Your task to perform on an android device: delete the emails in spam in the gmail app Image 0: 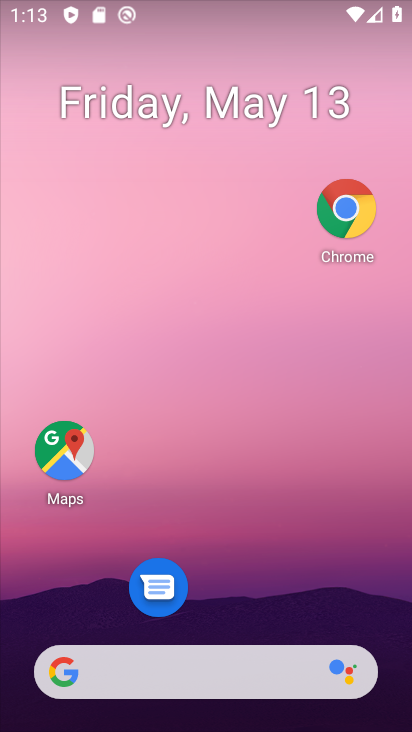
Step 0: drag from (227, 616) to (299, 9)
Your task to perform on an android device: delete the emails in spam in the gmail app Image 1: 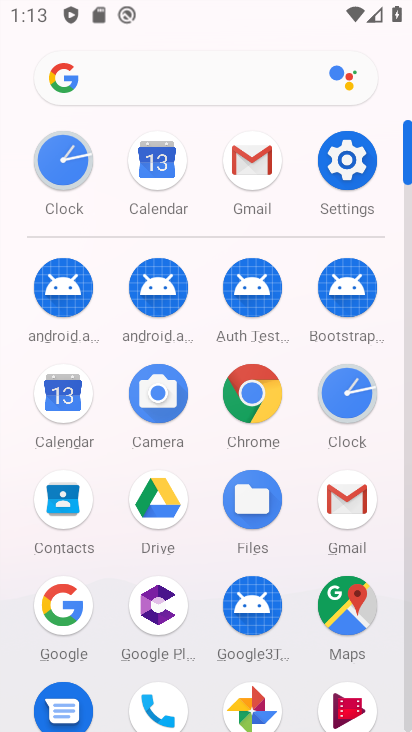
Step 1: click (242, 174)
Your task to perform on an android device: delete the emails in spam in the gmail app Image 2: 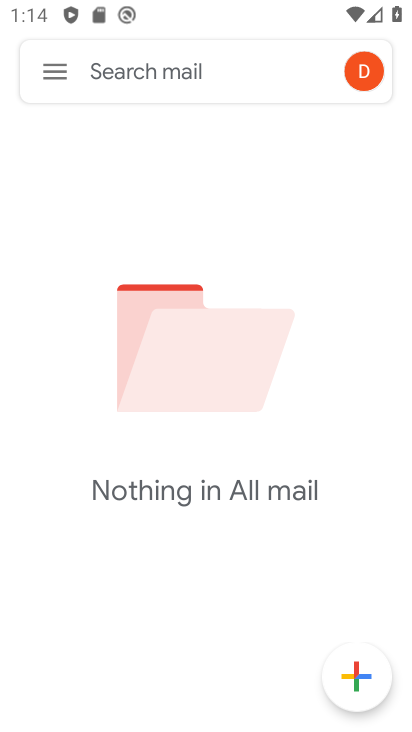
Step 2: click (63, 73)
Your task to perform on an android device: delete the emails in spam in the gmail app Image 3: 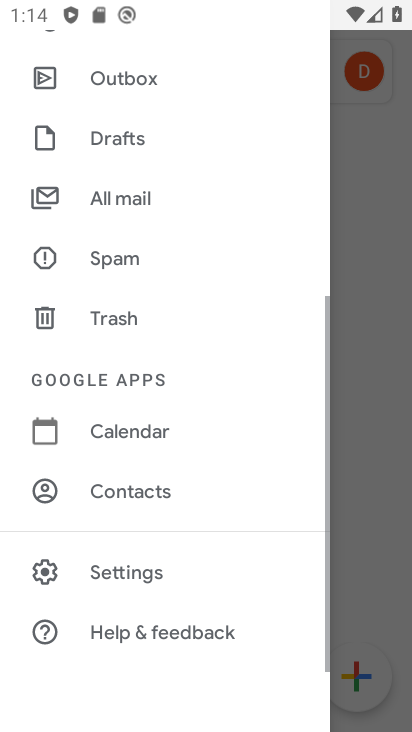
Step 3: click (149, 257)
Your task to perform on an android device: delete the emails in spam in the gmail app Image 4: 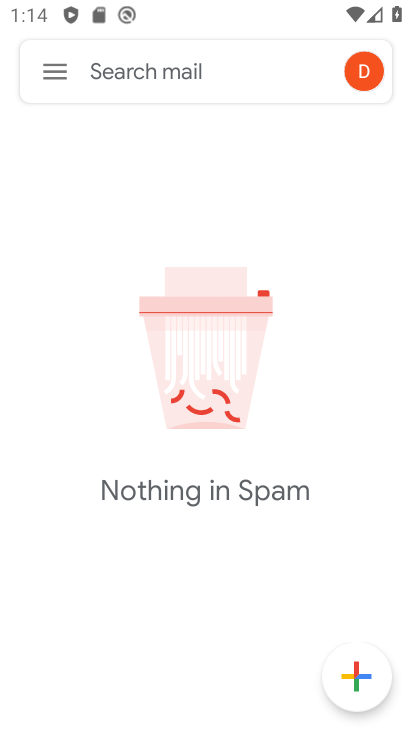
Step 4: task complete